Your task to perform on an android device: turn on javascript in the chrome app Image 0: 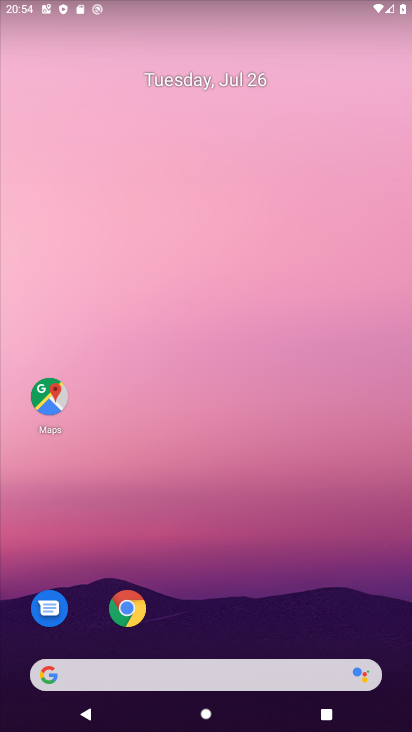
Step 0: click (125, 609)
Your task to perform on an android device: turn on javascript in the chrome app Image 1: 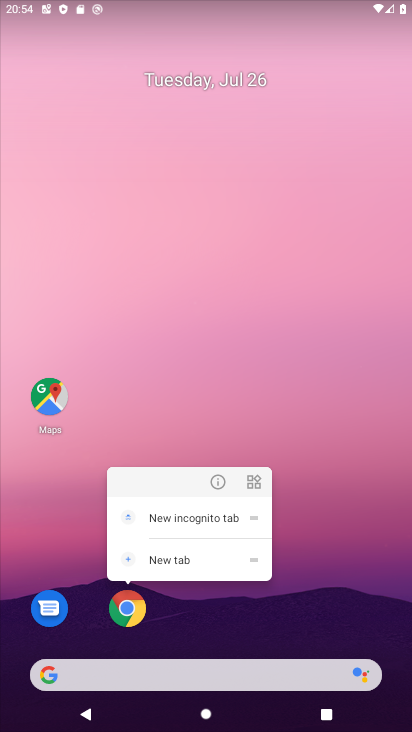
Step 1: click (124, 611)
Your task to perform on an android device: turn on javascript in the chrome app Image 2: 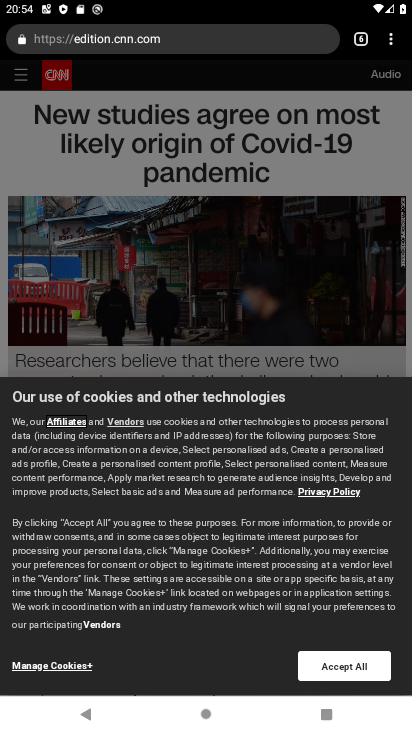
Step 2: click (394, 38)
Your task to perform on an android device: turn on javascript in the chrome app Image 3: 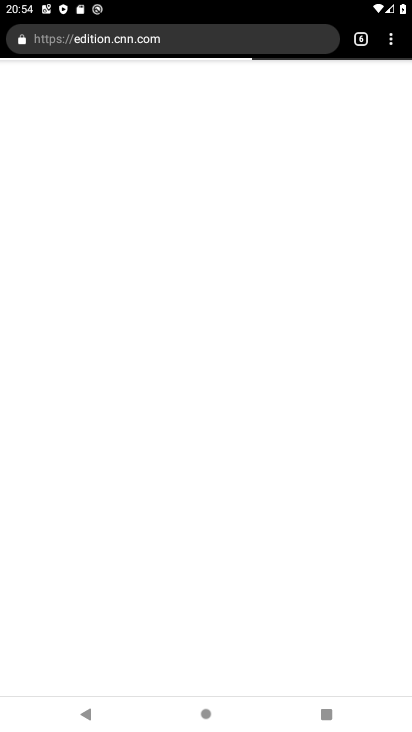
Step 3: click (393, 38)
Your task to perform on an android device: turn on javascript in the chrome app Image 4: 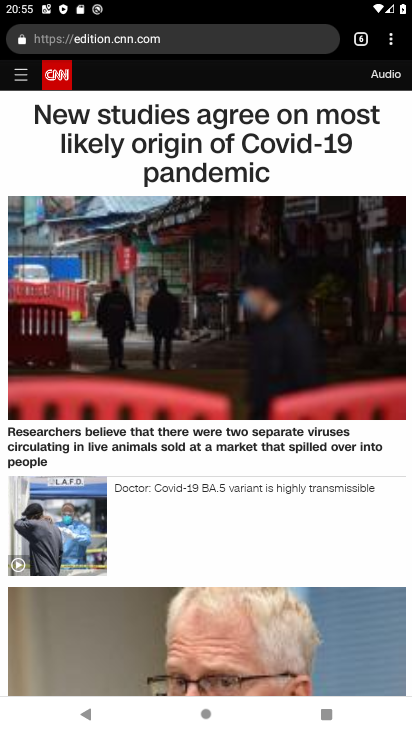
Step 4: click (401, 36)
Your task to perform on an android device: turn on javascript in the chrome app Image 5: 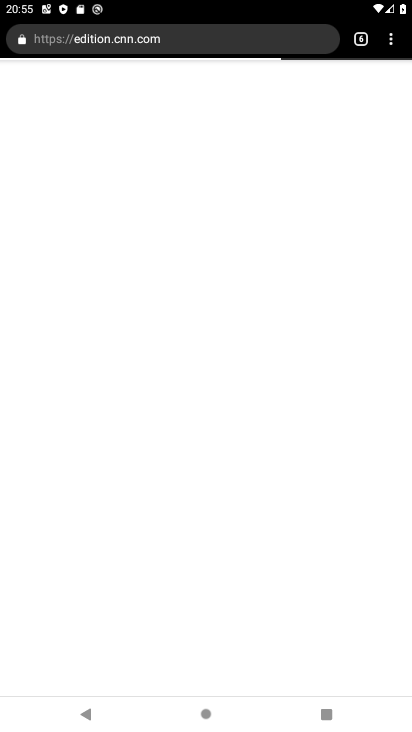
Step 5: click (395, 43)
Your task to perform on an android device: turn on javascript in the chrome app Image 6: 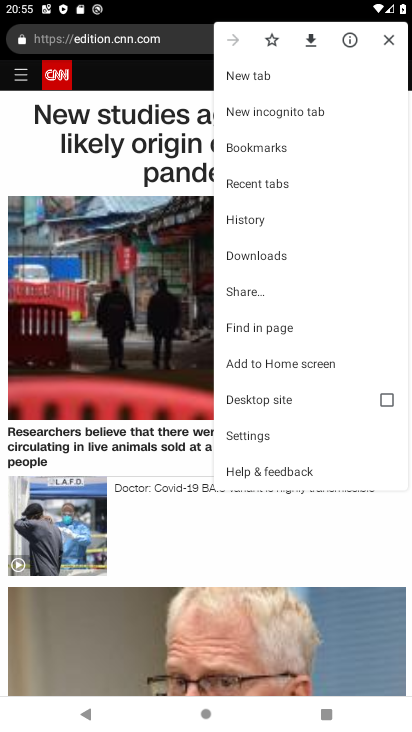
Step 6: click (252, 431)
Your task to perform on an android device: turn on javascript in the chrome app Image 7: 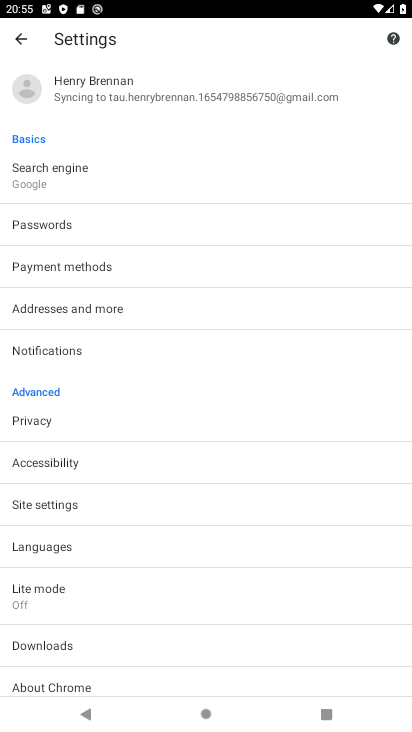
Step 7: click (47, 510)
Your task to perform on an android device: turn on javascript in the chrome app Image 8: 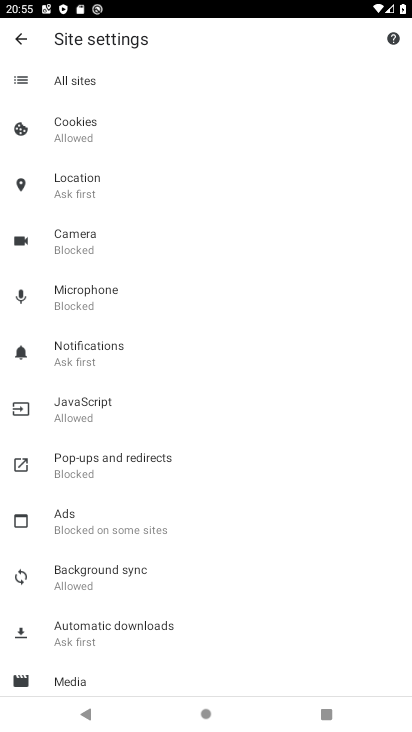
Step 8: click (89, 402)
Your task to perform on an android device: turn on javascript in the chrome app Image 9: 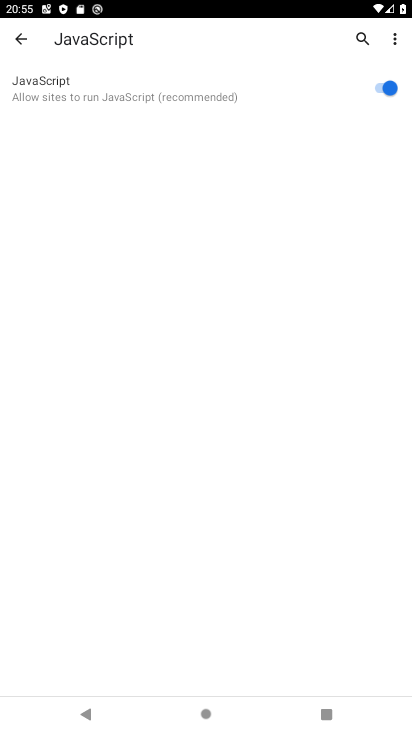
Step 9: task complete